Your task to perform on an android device: turn on priority inbox in the gmail app Image 0: 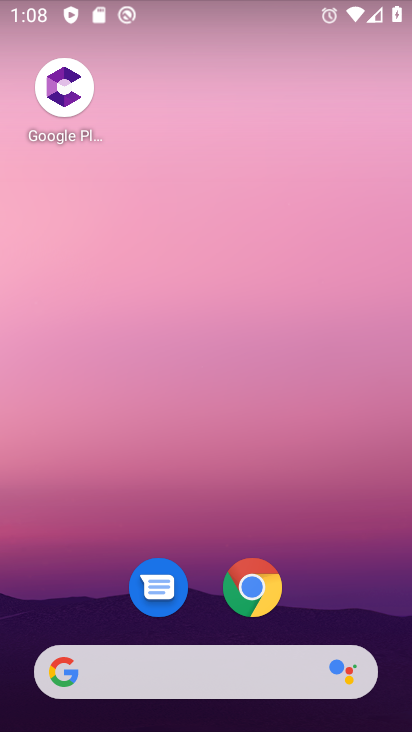
Step 0: drag from (391, 589) to (178, 110)
Your task to perform on an android device: turn on priority inbox in the gmail app Image 1: 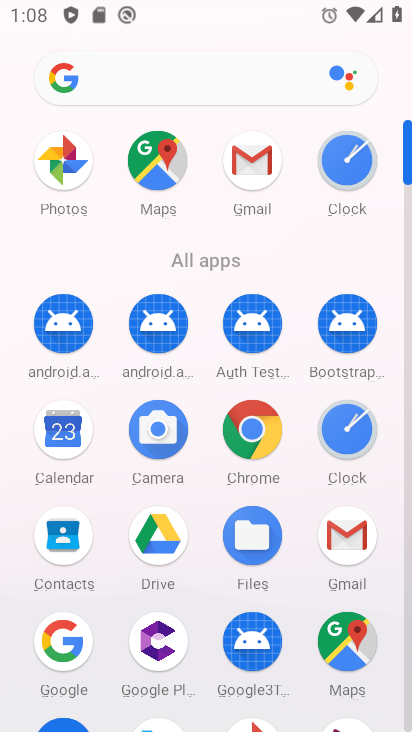
Step 1: click (359, 534)
Your task to perform on an android device: turn on priority inbox in the gmail app Image 2: 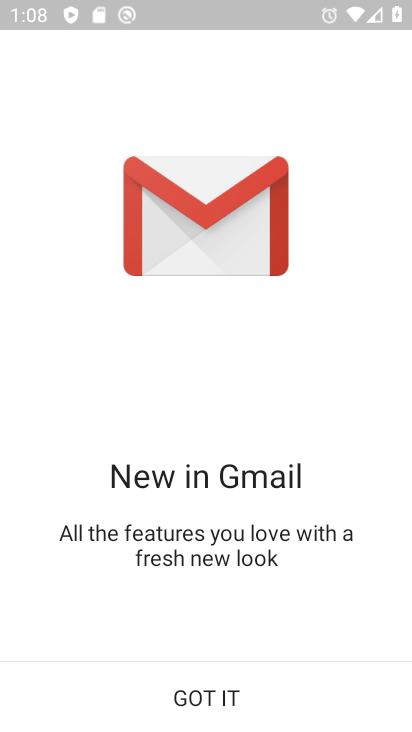
Step 2: click (199, 681)
Your task to perform on an android device: turn on priority inbox in the gmail app Image 3: 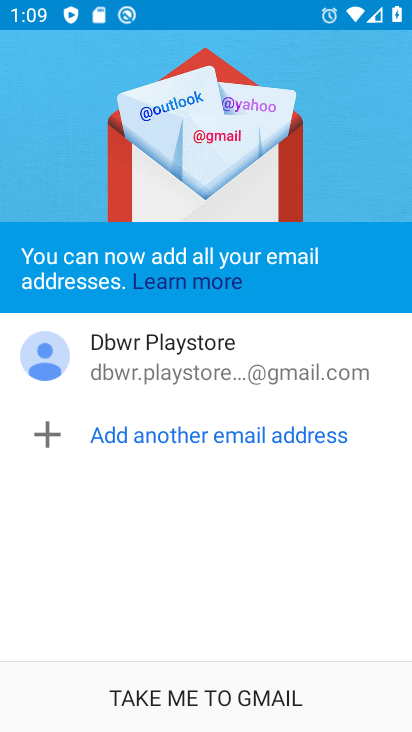
Step 3: click (215, 711)
Your task to perform on an android device: turn on priority inbox in the gmail app Image 4: 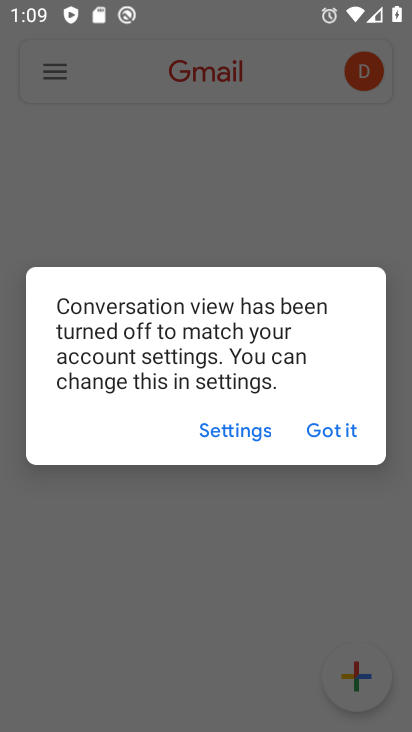
Step 4: click (303, 428)
Your task to perform on an android device: turn on priority inbox in the gmail app Image 5: 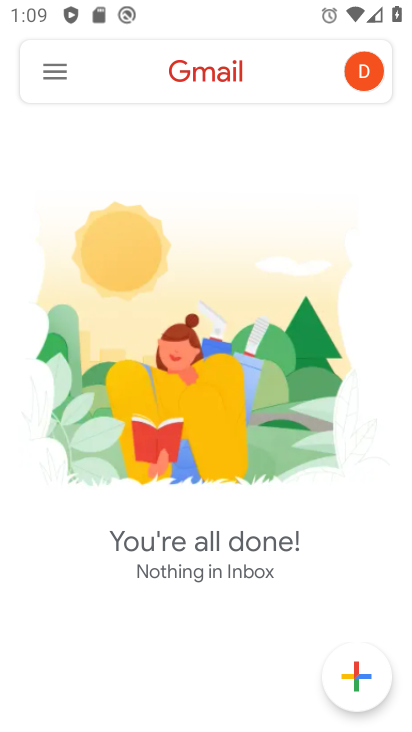
Step 5: click (68, 67)
Your task to perform on an android device: turn on priority inbox in the gmail app Image 6: 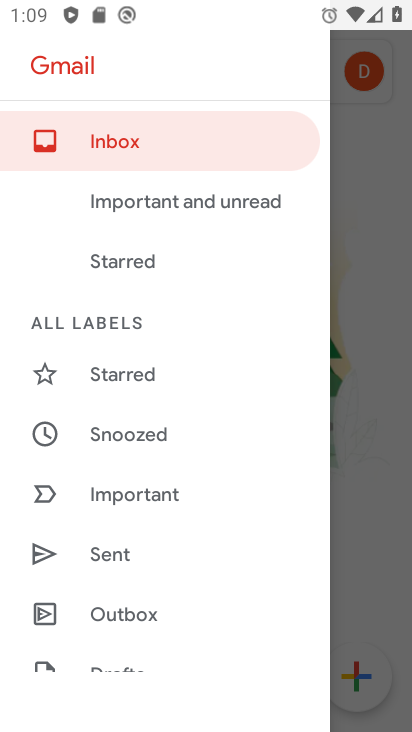
Step 6: drag from (269, 664) to (185, 160)
Your task to perform on an android device: turn on priority inbox in the gmail app Image 7: 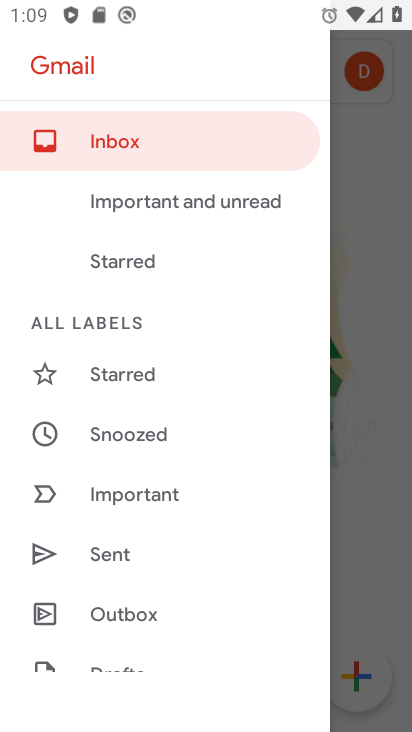
Step 7: drag from (201, 643) to (146, 358)
Your task to perform on an android device: turn on priority inbox in the gmail app Image 8: 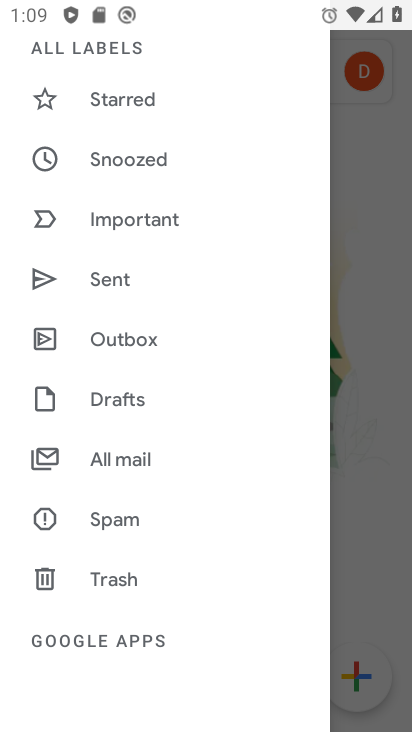
Step 8: drag from (168, 641) to (115, 384)
Your task to perform on an android device: turn on priority inbox in the gmail app Image 9: 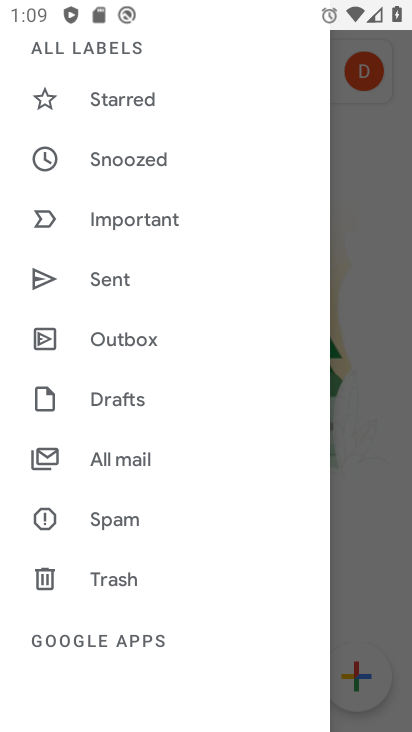
Step 9: drag from (90, 583) to (92, 513)
Your task to perform on an android device: turn on priority inbox in the gmail app Image 10: 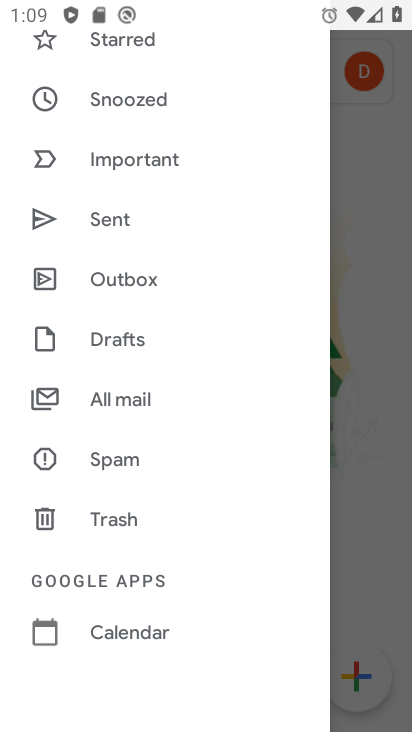
Step 10: drag from (173, 633) to (143, 160)
Your task to perform on an android device: turn on priority inbox in the gmail app Image 11: 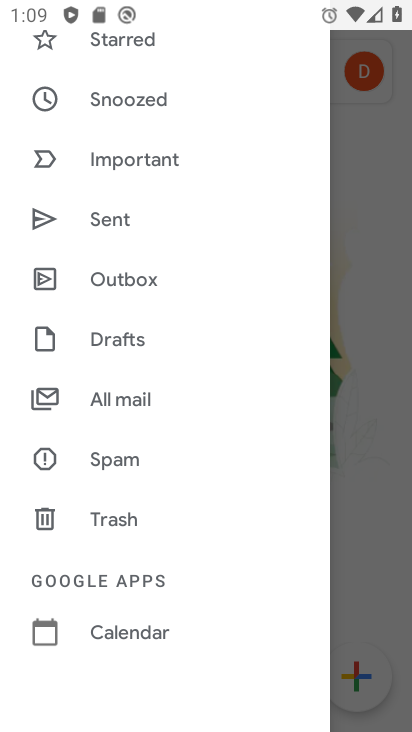
Step 11: drag from (198, 534) to (189, 176)
Your task to perform on an android device: turn on priority inbox in the gmail app Image 12: 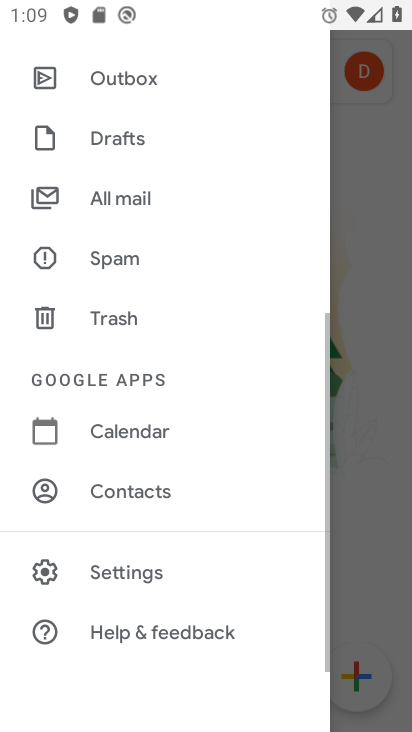
Step 12: click (213, 573)
Your task to perform on an android device: turn on priority inbox in the gmail app Image 13: 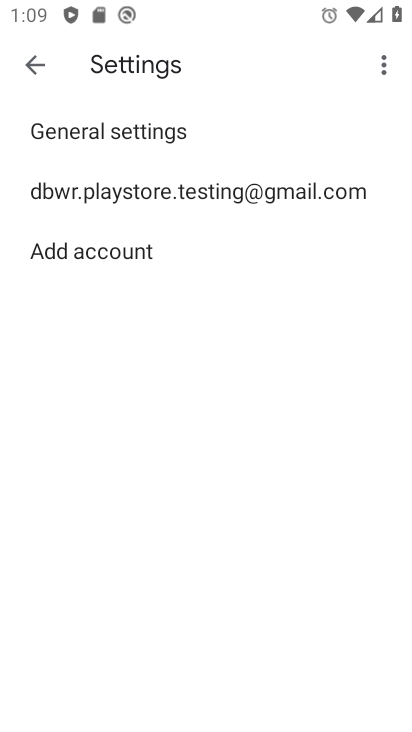
Step 13: click (189, 211)
Your task to perform on an android device: turn on priority inbox in the gmail app Image 14: 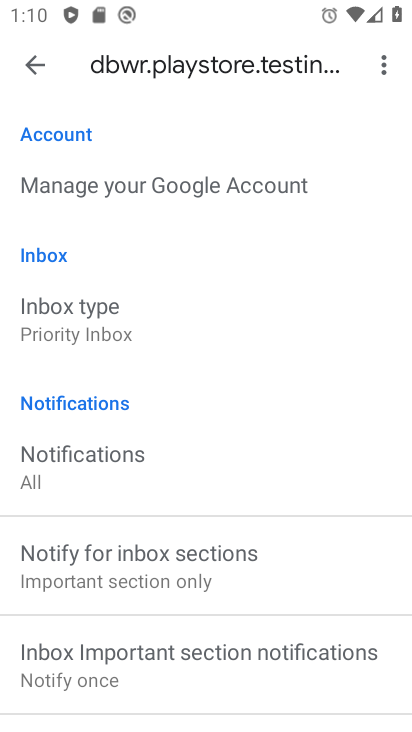
Step 14: task complete